Your task to perform on an android device: Open location settings Image 0: 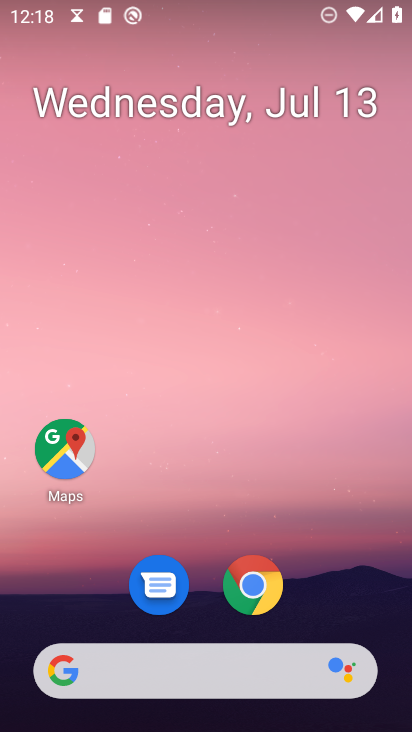
Step 0: drag from (204, 680) to (353, 10)
Your task to perform on an android device: Open location settings Image 1: 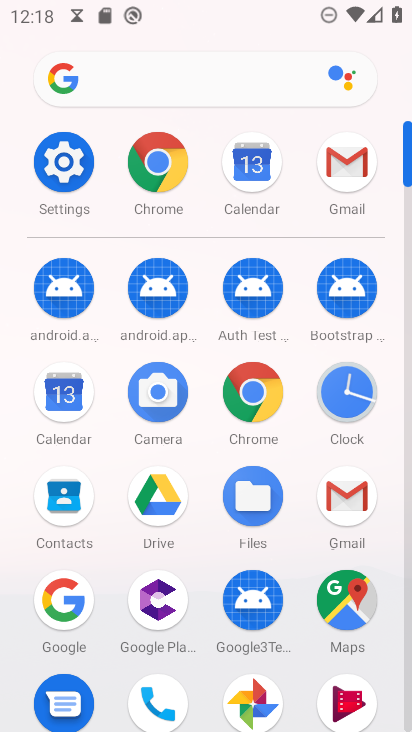
Step 1: click (70, 173)
Your task to perform on an android device: Open location settings Image 2: 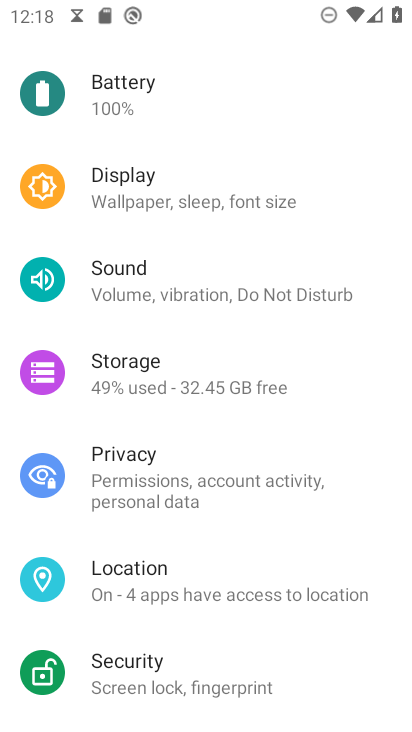
Step 2: click (174, 576)
Your task to perform on an android device: Open location settings Image 3: 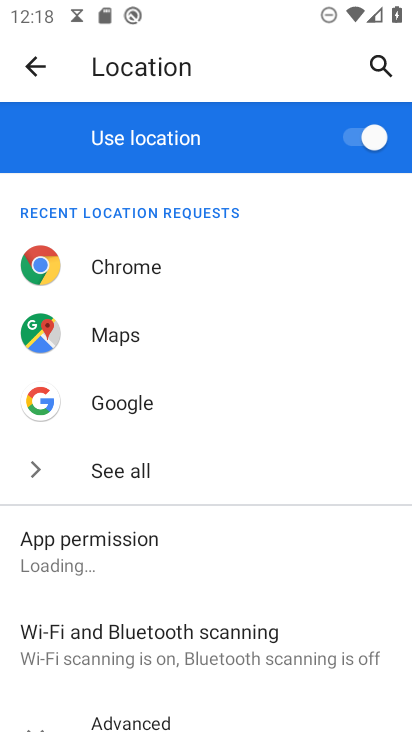
Step 3: task complete